Your task to perform on an android device: turn on the 24-hour format for clock Image 0: 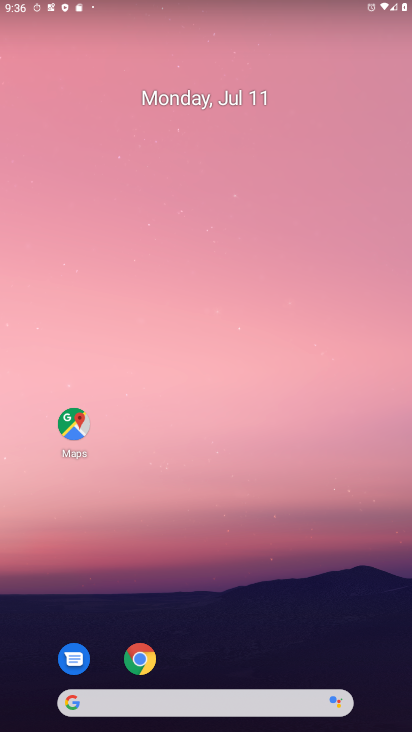
Step 0: click (330, 190)
Your task to perform on an android device: turn on the 24-hour format for clock Image 1: 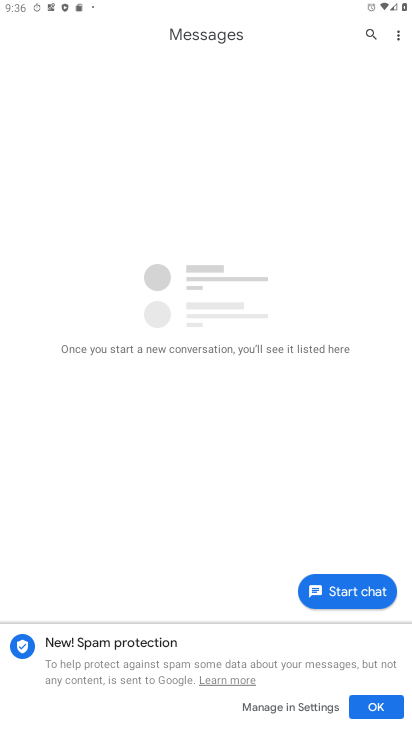
Step 1: press home button
Your task to perform on an android device: turn on the 24-hour format for clock Image 2: 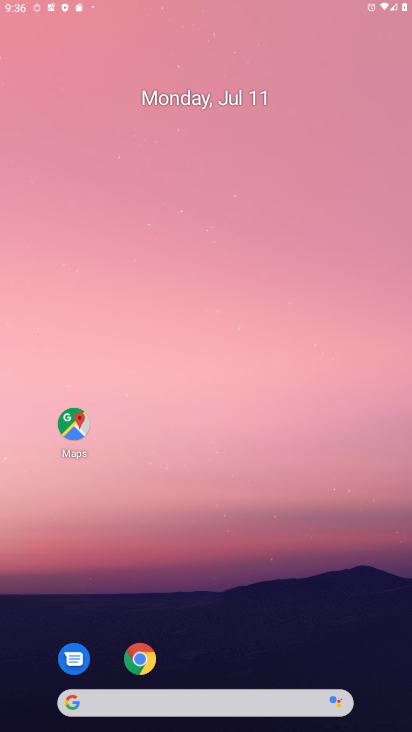
Step 2: drag from (238, 594) to (337, 116)
Your task to perform on an android device: turn on the 24-hour format for clock Image 3: 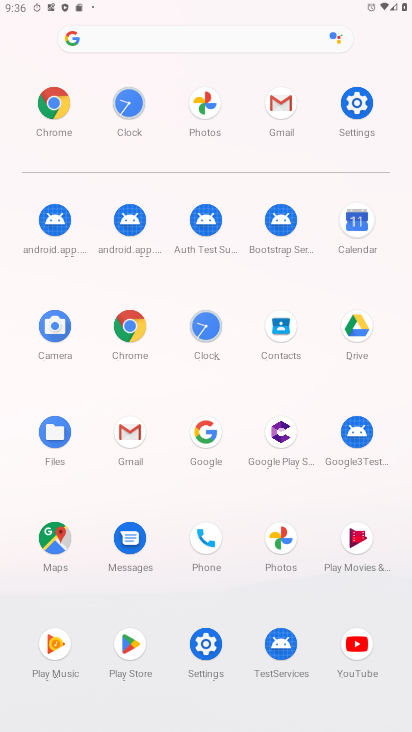
Step 3: click (203, 339)
Your task to perform on an android device: turn on the 24-hour format for clock Image 4: 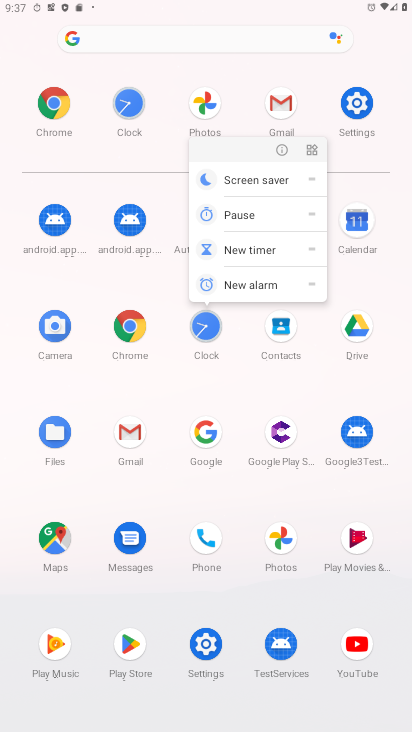
Step 4: click (277, 147)
Your task to perform on an android device: turn on the 24-hour format for clock Image 5: 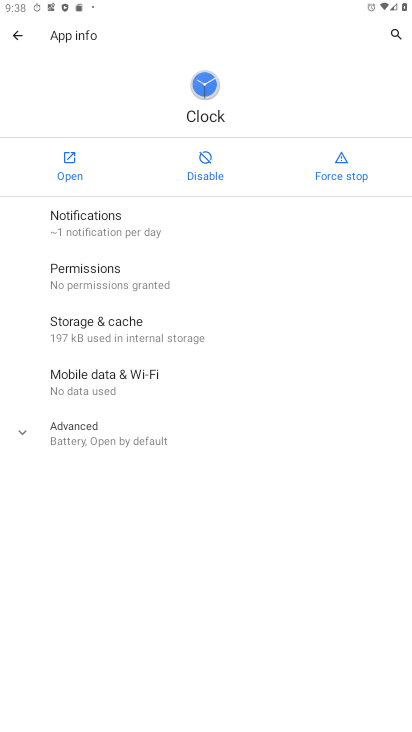
Step 5: click (67, 159)
Your task to perform on an android device: turn on the 24-hour format for clock Image 6: 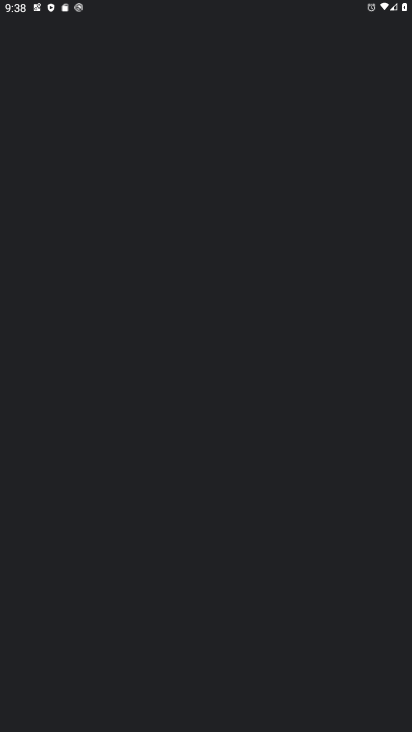
Step 6: click (211, 220)
Your task to perform on an android device: turn on the 24-hour format for clock Image 7: 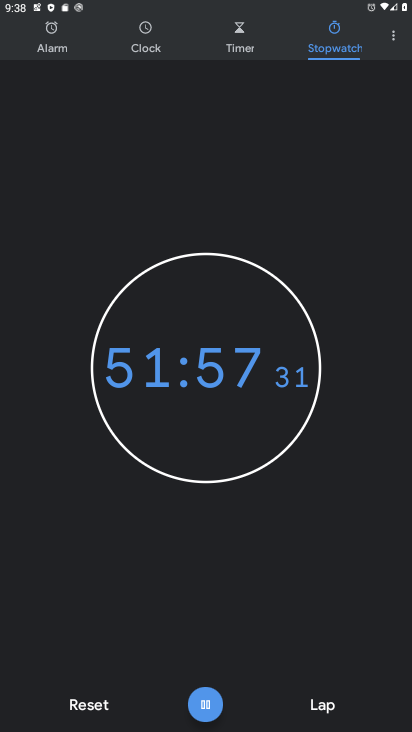
Step 7: drag from (216, 460) to (223, 244)
Your task to perform on an android device: turn on the 24-hour format for clock Image 8: 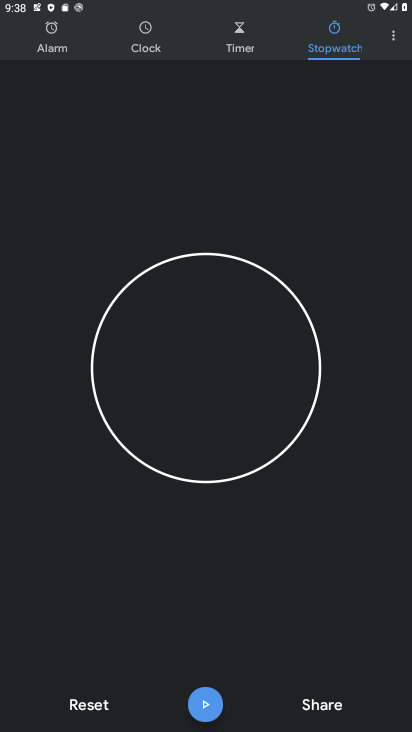
Step 8: click (98, 698)
Your task to perform on an android device: turn on the 24-hour format for clock Image 9: 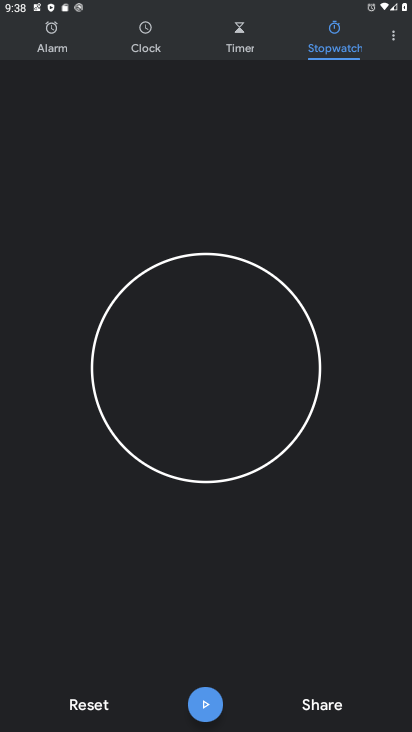
Step 9: click (97, 698)
Your task to perform on an android device: turn on the 24-hour format for clock Image 10: 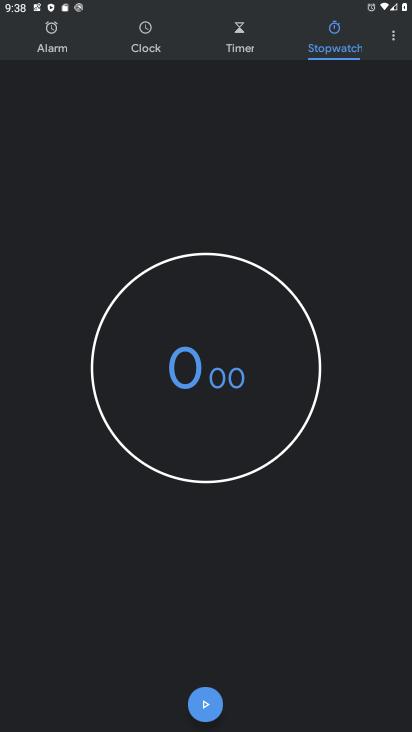
Step 10: click (383, 34)
Your task to perform on an android device: turn on the 24-hour format for clock Image 11: 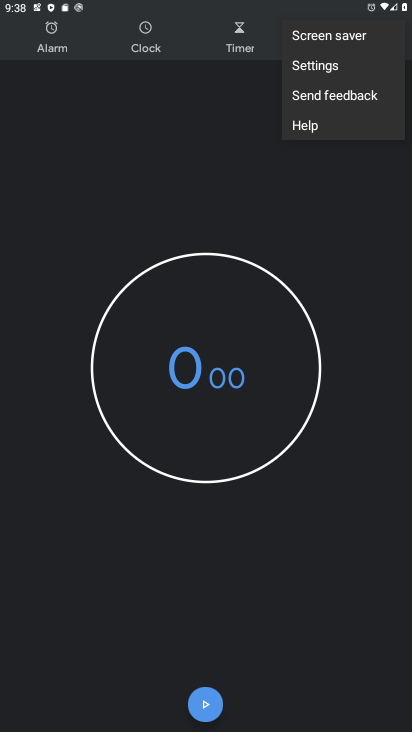
Step 11: click (318, 70)
Your task to perform on an android device: turn on the 24-hour format for clock Image 12: 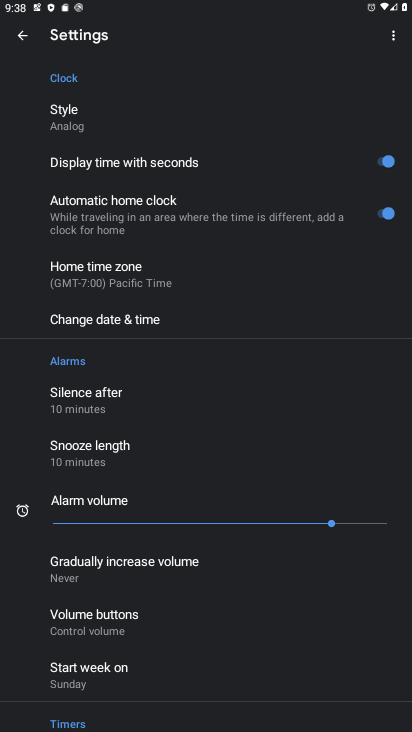
Step 12: click (116, 311)
Your task to perform on an android device: turn on the 24-hour format for clock Image 13: 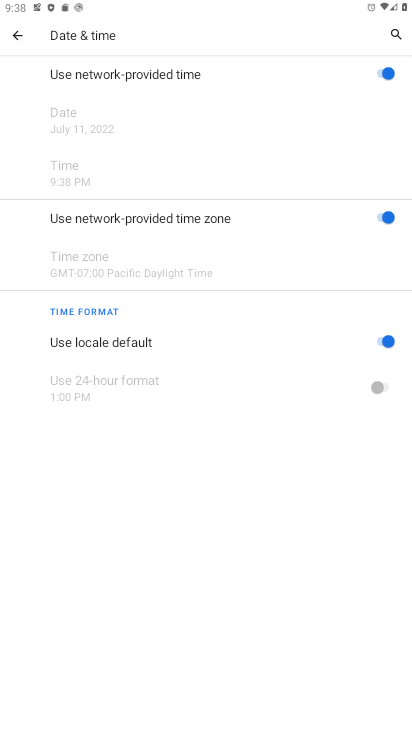
Step 13: click (374, 396)
Your task to perform on an android device: turn on the 24-hour format for clock Image 14: 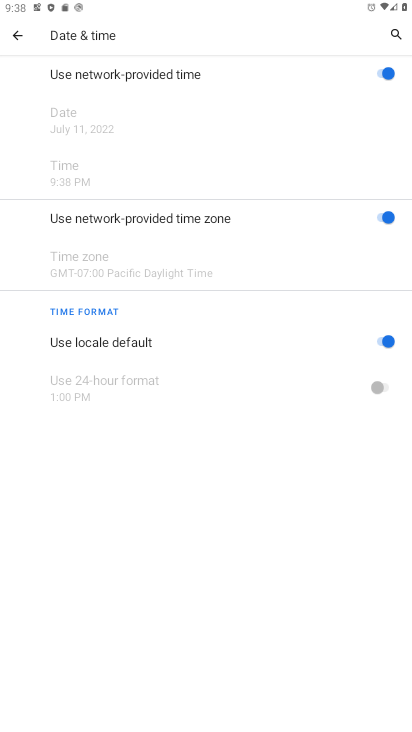
Step 14: click (372, 395)
Your task to perform on an android device: turn on the 24-hour format for clock Image 15: 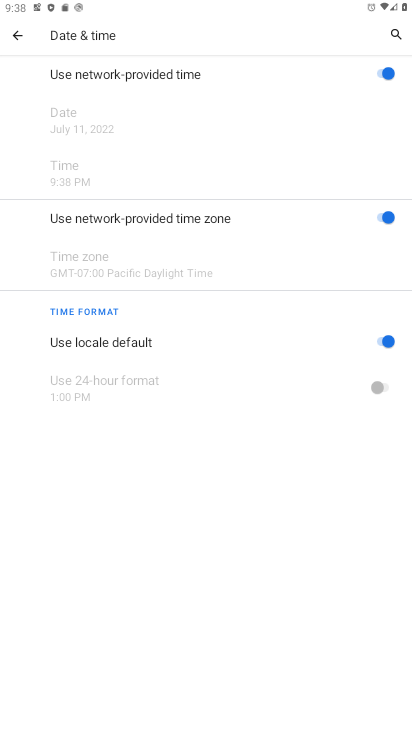
Step 15: click (377, 344)
Your task to perform on an android device: turn on the 24-hour format for clock Image 16: 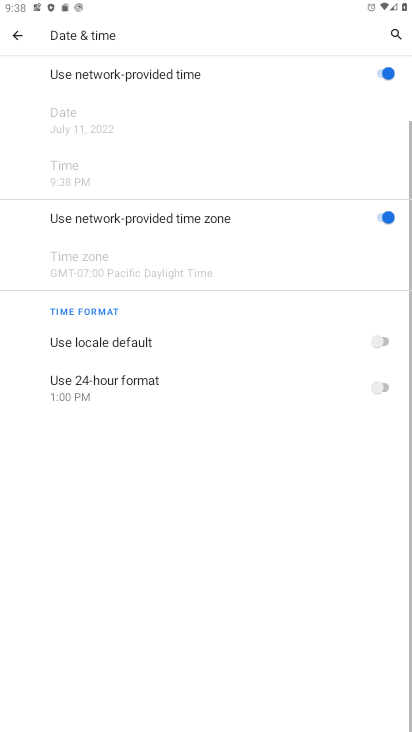
Step 16: click (377, 384)
Your task to perform on an android device: turn on the 24-hour format for clock Image 17: 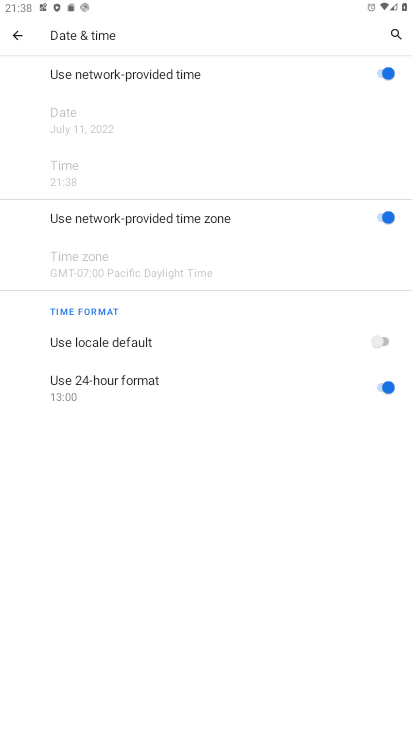
Step 17: task complete